Your task to perform on an android device: Show me productivity apps on the Play Store Image 0: 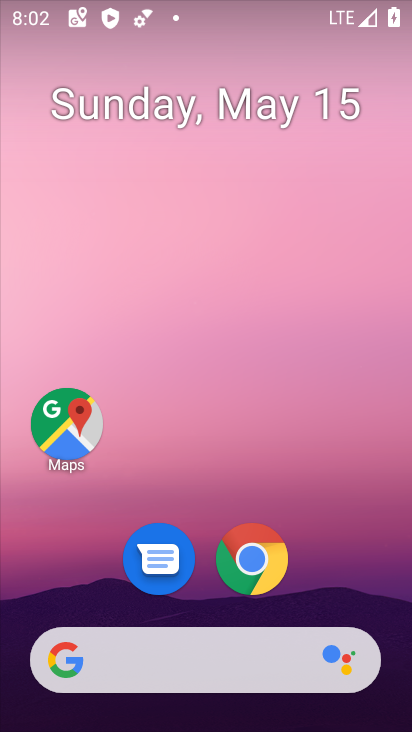
Step 0: drag from (334, 580) to (350, 119)
Your task to perform on an android device: Show me productivity apps on the Play Store Image 1: 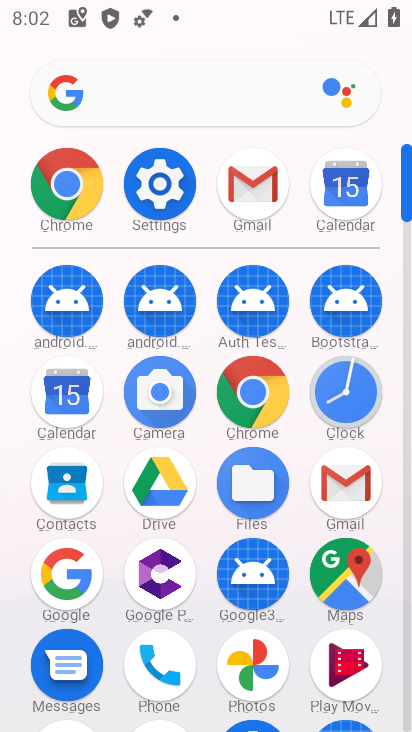
Step 1: click (407, 635)
Your task to perform on an android device: Show me productivity apps on the Play Store Image 2: 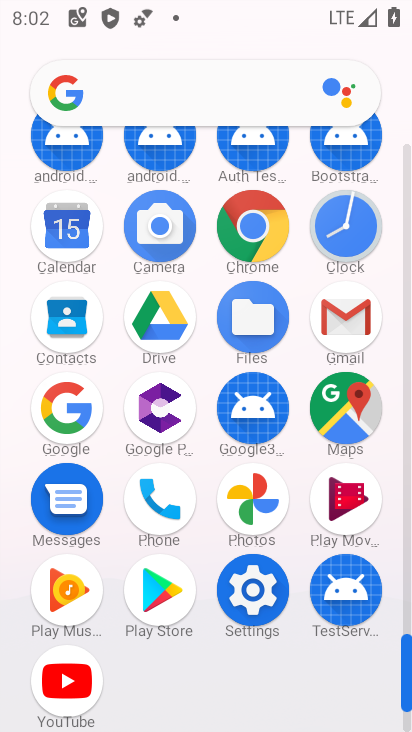
Step 2: click (149, 590)
Your task to perform on an android device: Show me productivity apps on the Play Store Image 3: 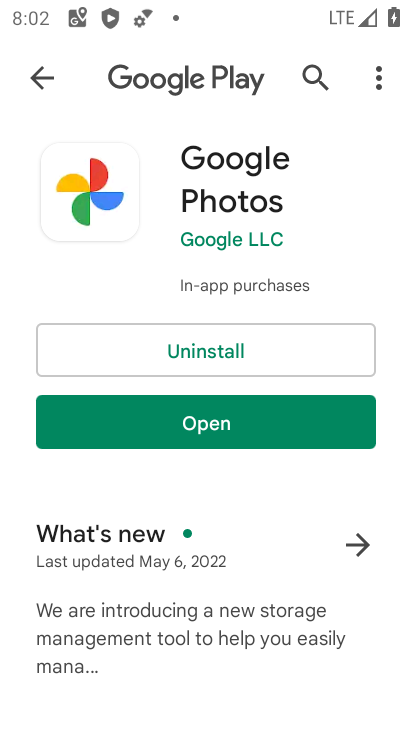
Step 3: click (29, 80)
Your task to perform on an android device: Show me productivity apps on the Play Store Image 4: 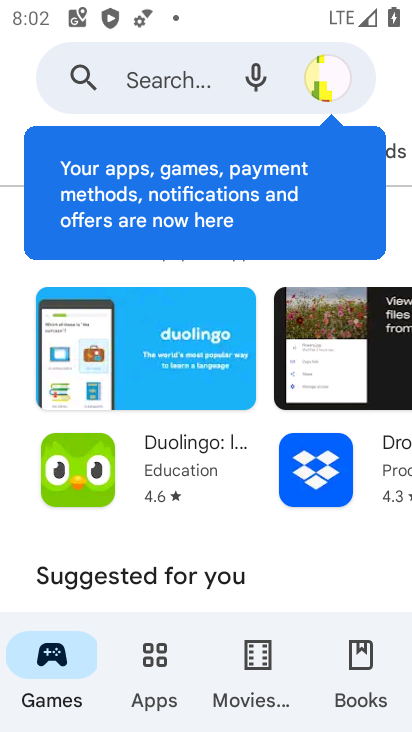
Step 4: click (365, 141)
Your task to perform on an android device: Show me productivity apps on the Play Store Image 5: 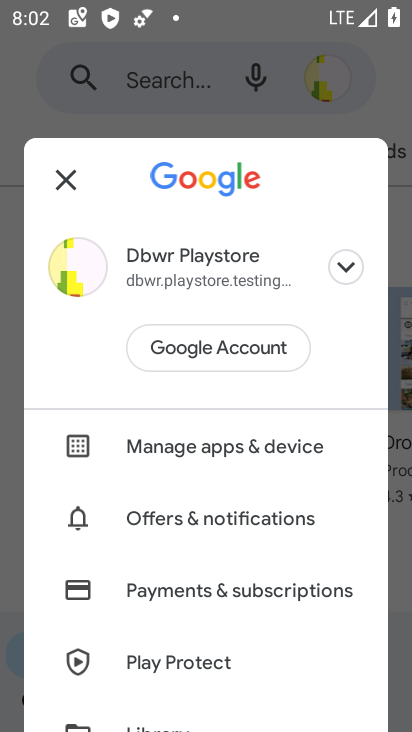
Step 5: click (59, 178)
Your task to perform on an android device: Show me productivity apps on the Play Store Image 6: 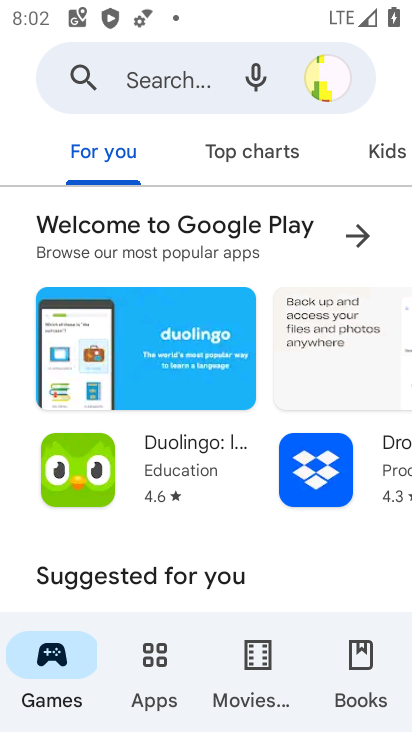
Step 6: click (165, 663)
Your task to perform on an android device: Show me productivity apps on the Play Store Image 7: 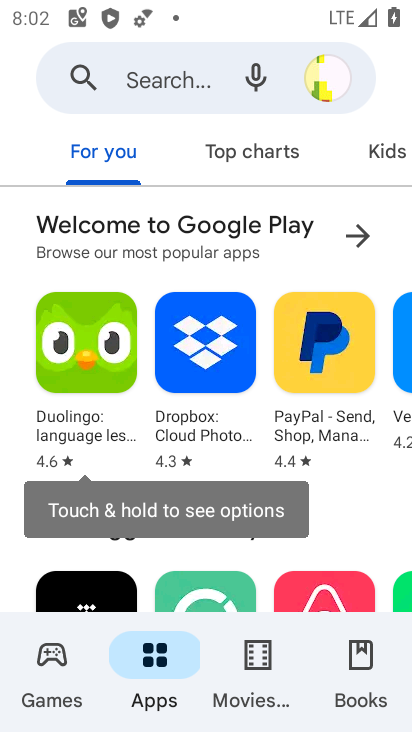
Step 7: click (233, 158)
Your task to perform on an android device: Show me productivity apps on the Play Store Image 8: 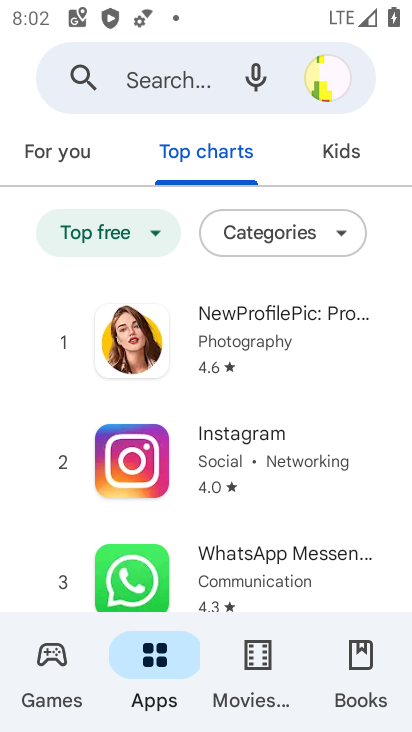
Step 8: click (282, 230)
Your task to perform on an android device: Show me productivity apps on the Play Store Image 9: 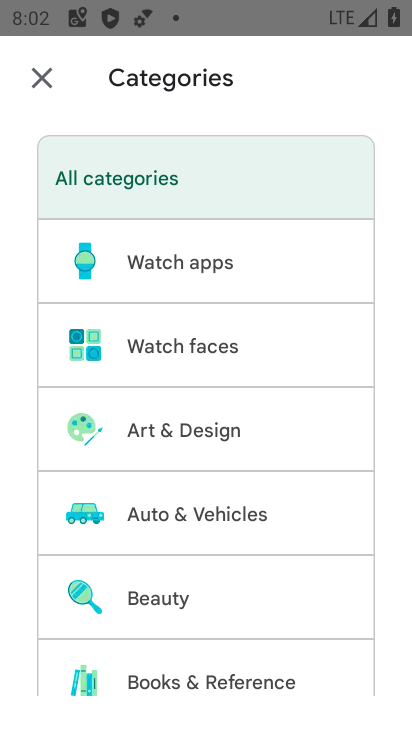
Step 9: drag from (214, 610) to (317, 213)
Your task to perform on an android device: Show me productivity apps on the Play Store Image 10: 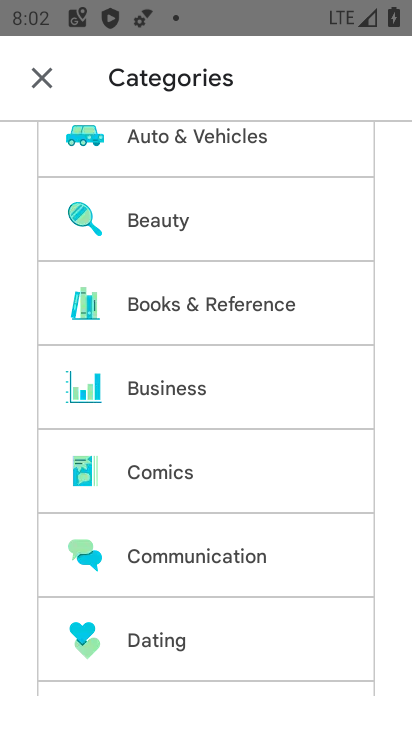
Step 10: drag from (274, 645) to (276, 143)
Your task to perform on an android device: Show me productivity apps on the Play Store Image 11: 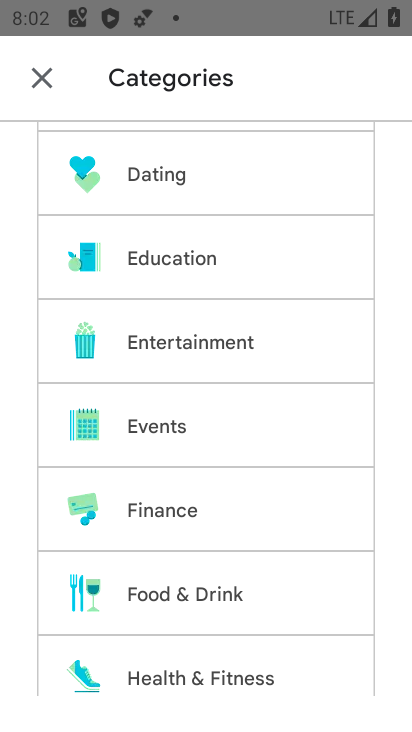
Step 11: drag from (258, 563) to (256, 277)
Your task to perform on an android device: Show me productivity apps on the Play Store Image 12: 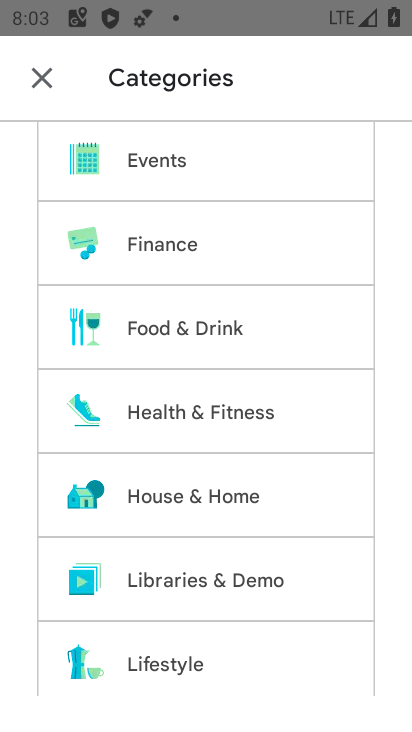
Step 12: drag from (238, 634) to (252, 344)
Your task to perform on an android device: Show me productivity apps on the Play Store Image 13: 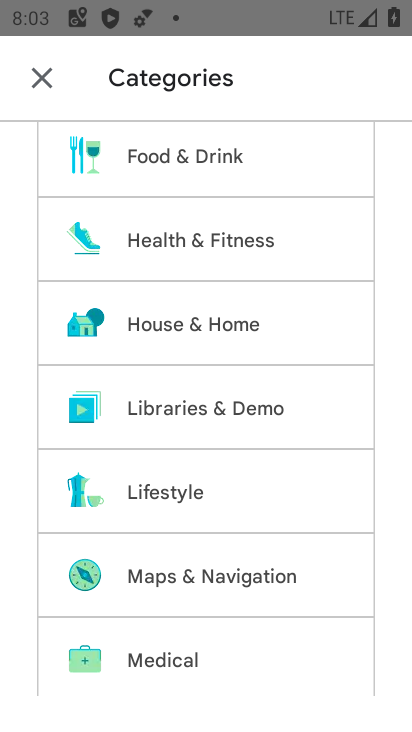
Step 13: drag from (213, 639) to (210, 314)
Your task to perform on an android device: Show me productivity apps on the Play Store Image 14: 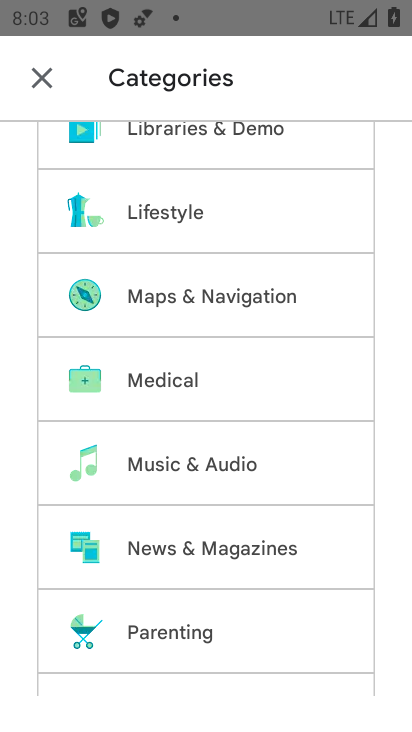
Step 14: drag from (210, 633) to (230, 338)
Your task to perform on an android device: Show me productivity apps on the Play Store Image 15: 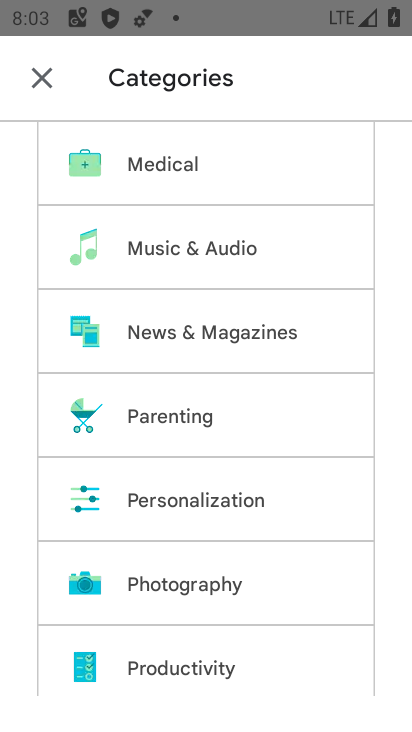
Step 15: click (218, 653)
Your task to perform on an android device: Show me productivity apps on the Play Store Image 16: 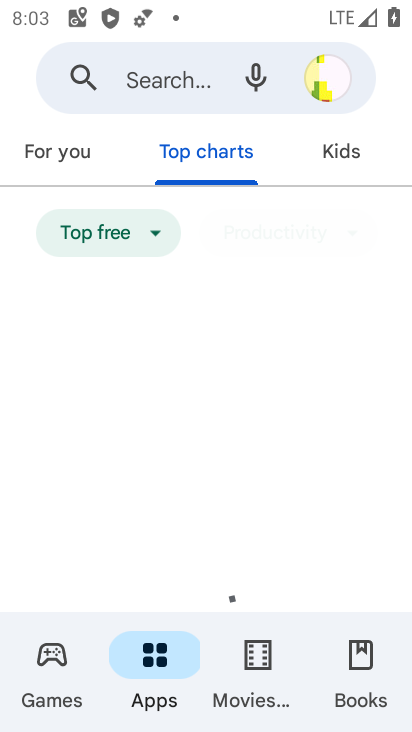
Step 16: task complete